Your task to perform on an android device: turn off data saver in the chrome app Image 0: 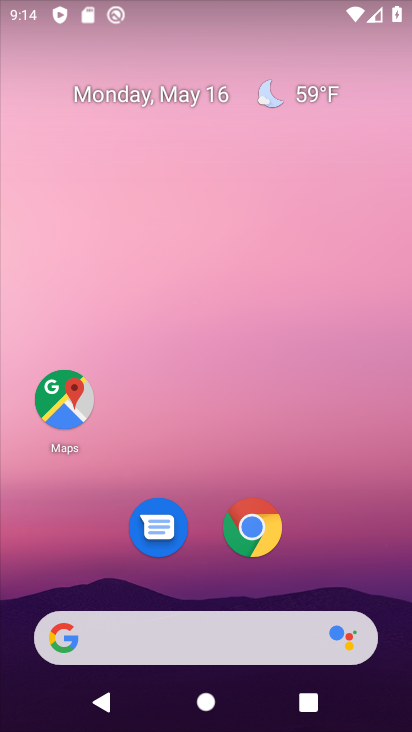
Step 0: drag from (359, 285) to (352, 158)
Your task to perform on an android device: turn off data saver in the chrome app Image 1: 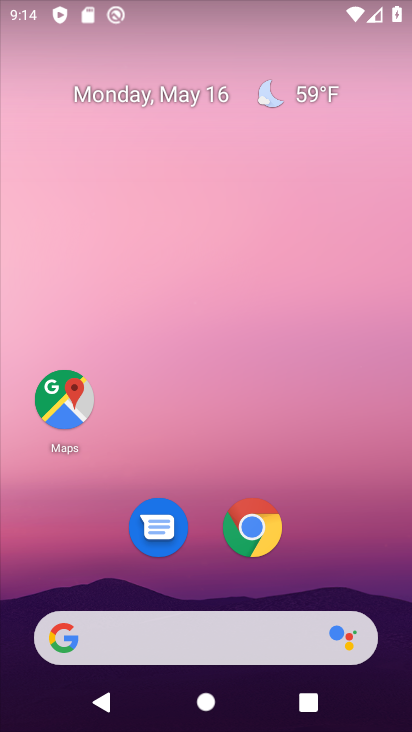
Step 1: click (262, 531)
Your task to perform on an android device: turn off data saver in the chrome app Image 2: 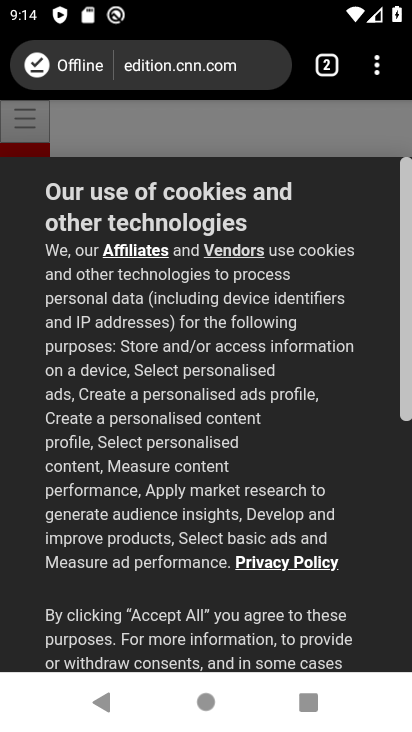
Step 2: click (377, 66)
Your task to perform on an android device: turn off data saver in the chrome app Image 3: 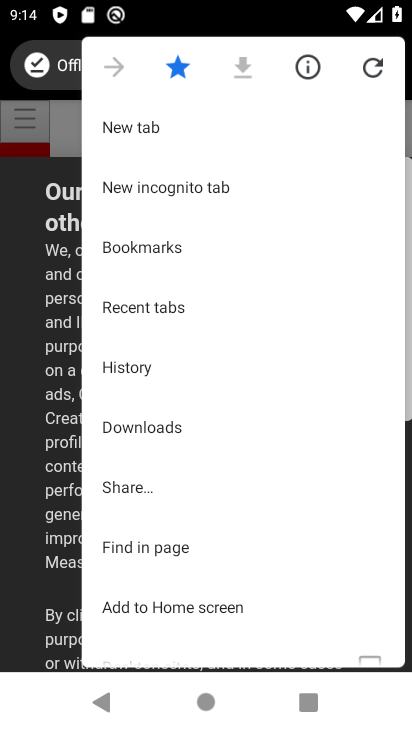
Step 3: drag from (279, 599) to (288, 514)
Your task to perform on an android device: turn off data saver in the chrome app Image 4: 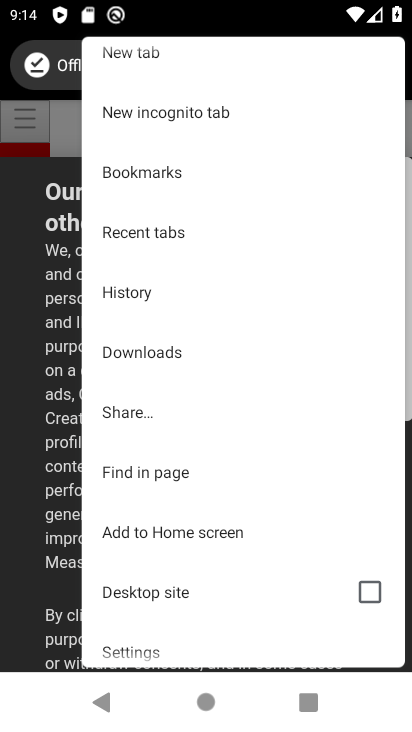
Step 4: click (141, 642)
Your task to perform on an android device: turn off data saver in the chrome app Image 5: 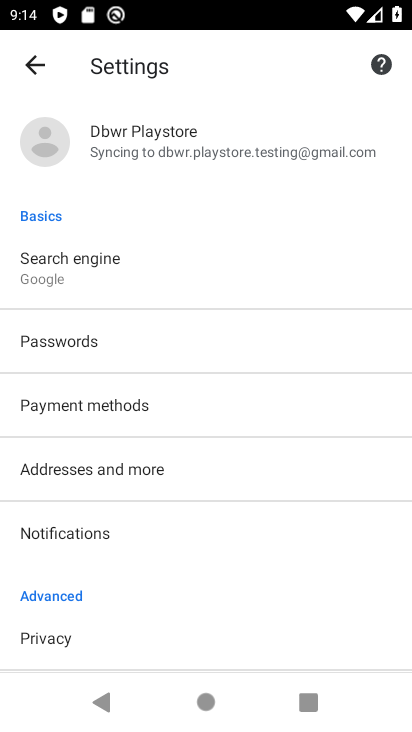
Step 5: drag from (222, 615) to (216, 377)
Your task to perform on an android device: turn off data saver in the chrome app Image 6: 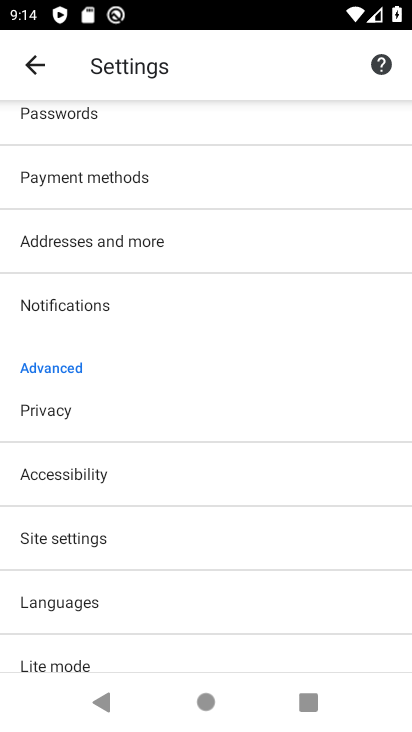
Step 6: drag from (215, 616) to (227, 379)
Your task to perform on an android device: turn off data saver in the chrome app Image 7: 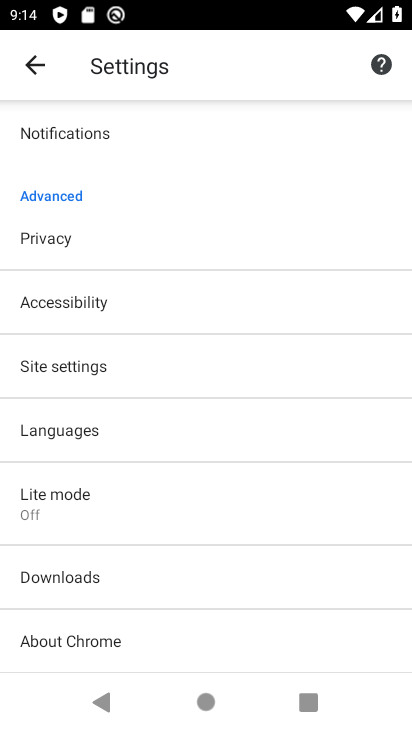
Step 7: click (43, 492)
Your task to perform on an android device: turn off data saver in the chrome app Image 8: 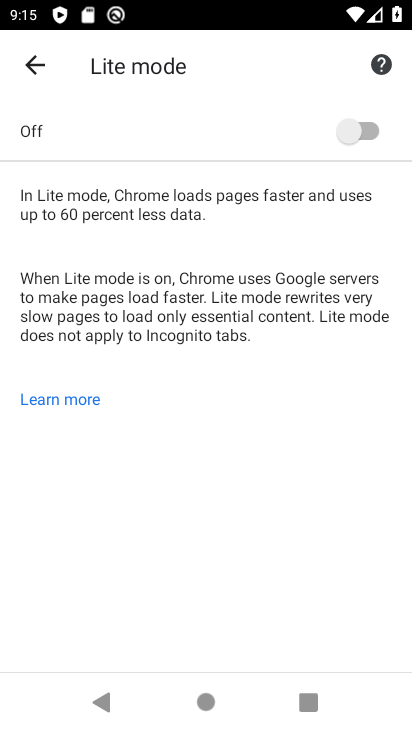
Step 8: task complete